Your task to perform on an android device: turn on javascript in the chrome app Image 0: 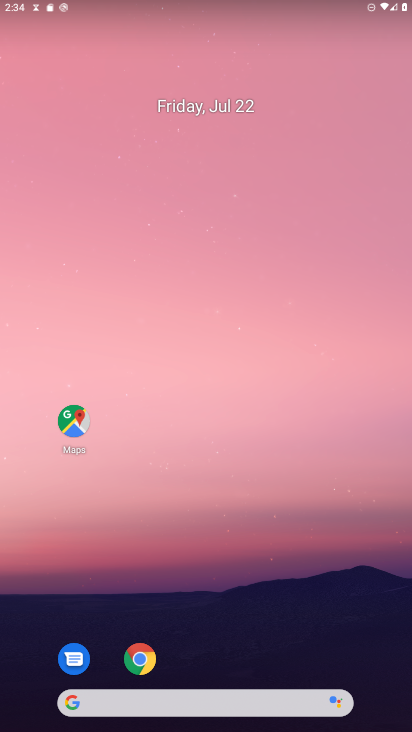
Step 0: drag from (316, 606) to (332, 107)
Your task to perform on an android device: turn on javascript in the chrome app Image 1: 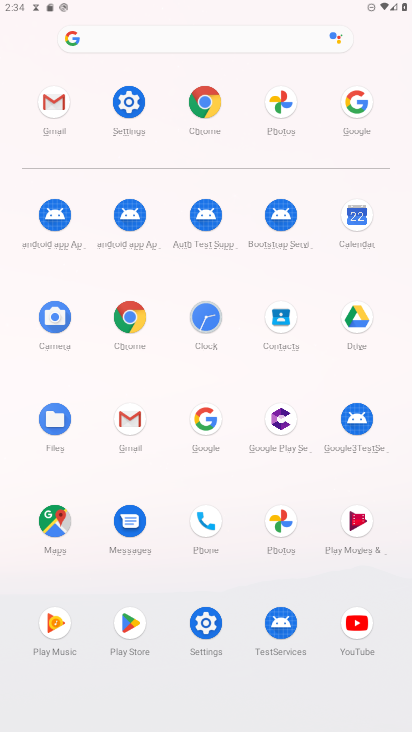
Step 1: click (205, 106)
Your task to perform on an android device: turn on javascript in the chrome app Image 2: 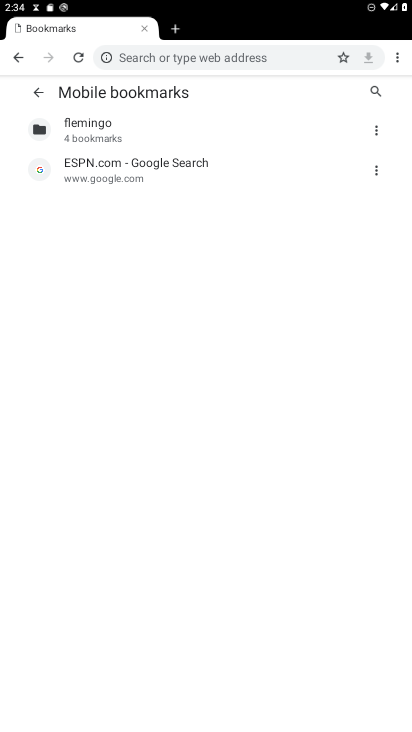
Step 2: drag from (392, 58) to (293, 270)
Your task to perform on an android device: turn on javascript in the chrome app Image 3: 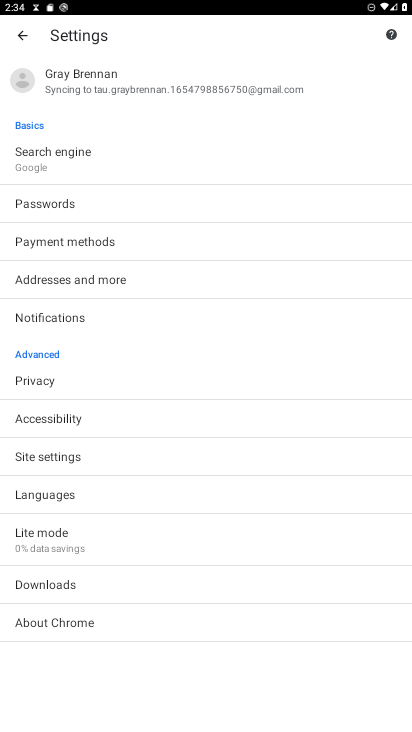
Step 3: click (59, 452)
Your task to perform on an android device: turn on javascript in the chrome app Image 4: 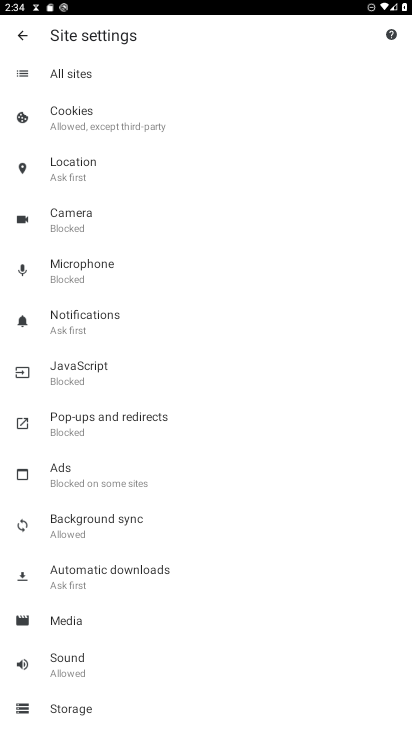
Step 4: click (101, 374)
Your task to perform on an android device: turn on javascript in the chrome app Image 5: 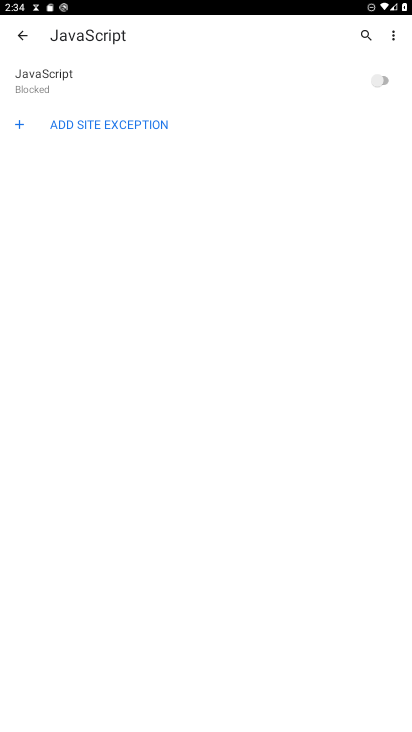
Step 5: click (383, 79)
Your task to perform on an android device: turn on javascript in the chrome app Image 6: 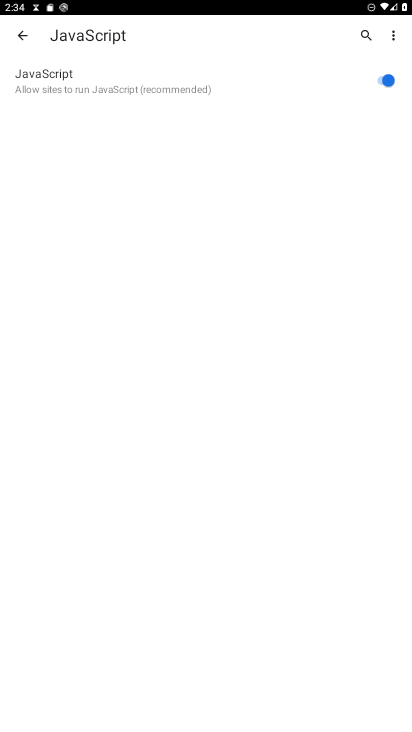
Step 6: task complete